Your task to perform on an android device: turn on translation in the chrome app Image 0: 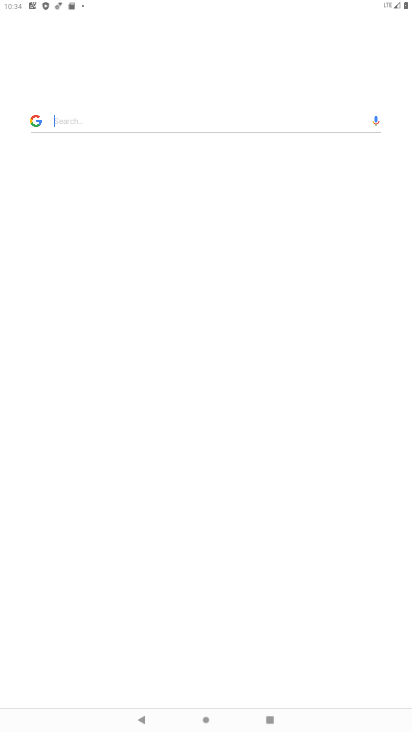
Step 0: drag from (163, 727) to (321, 1)
Your task to perform on an android device: turn on translation in the chrome app Image 1: 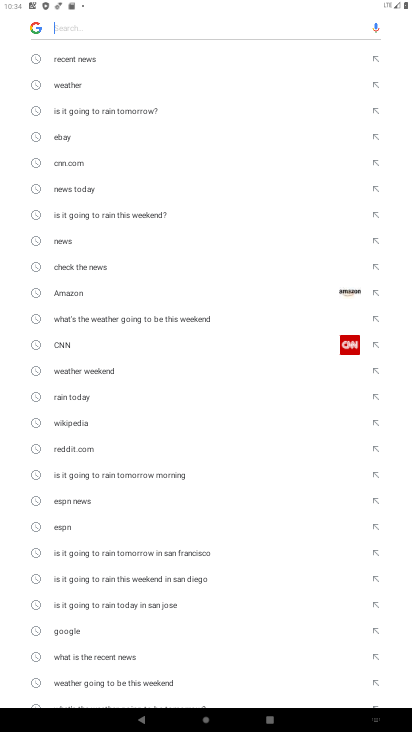
Step 1: press home button
Your task to perform on an android device: turn on translation in the chrome app Image 2: 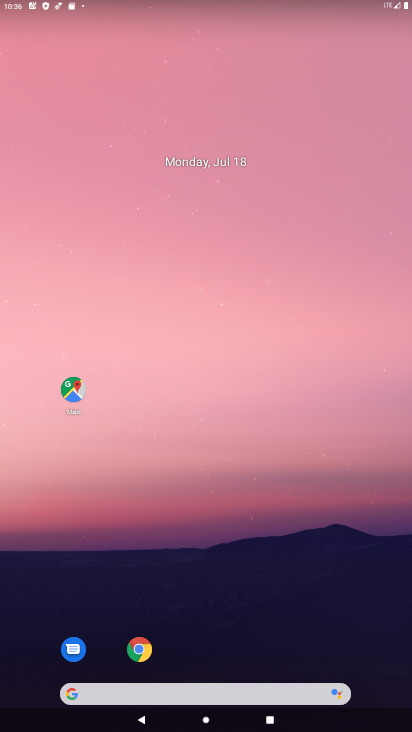
Step 2: drag from (179, 629) to (403, 16)
Your task to perform on an android device: turn on translation in the chrome app Image 3: 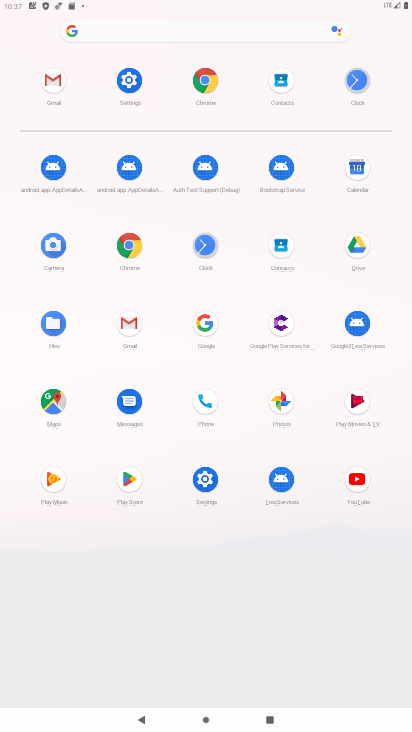
Step 3: click (207, 82)
Your task to perform on an android device: turn on translation in the chrome app Image 4: 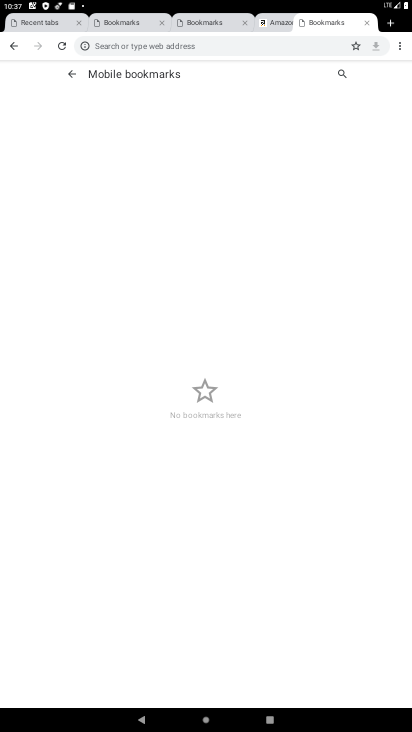
Step 4: click (398, 47)
Your task to perform on an android device: turn on translation in the chrome app Image 5: 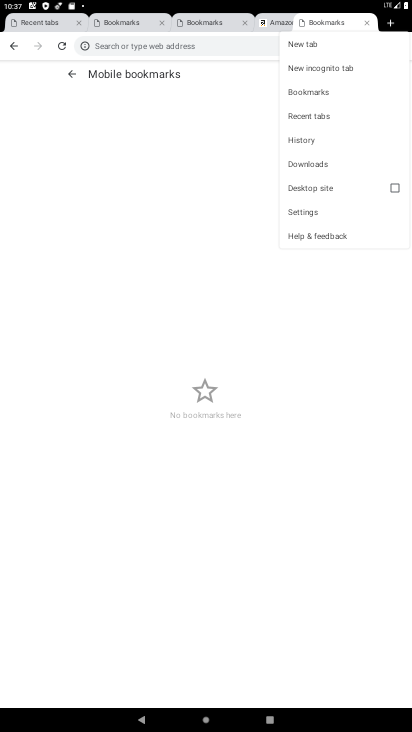
Step 5: click (312, 212)
Your task to perform on an android device: turn on translation in the chrome app Image 6: 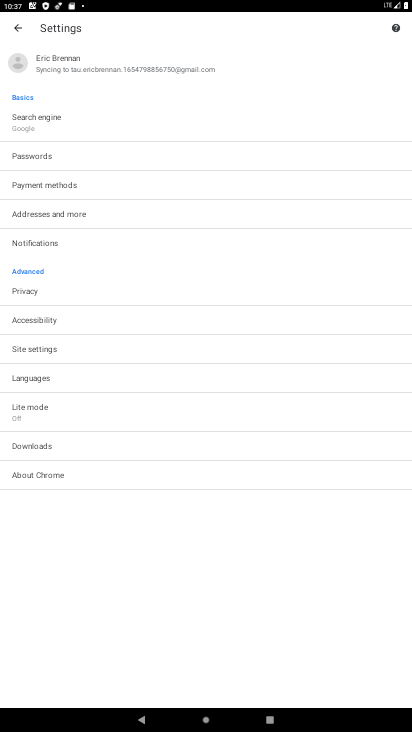
Step 6: click (39, 387)
Your task to perform on an android device: turn on translation in the chrome app Image 7: 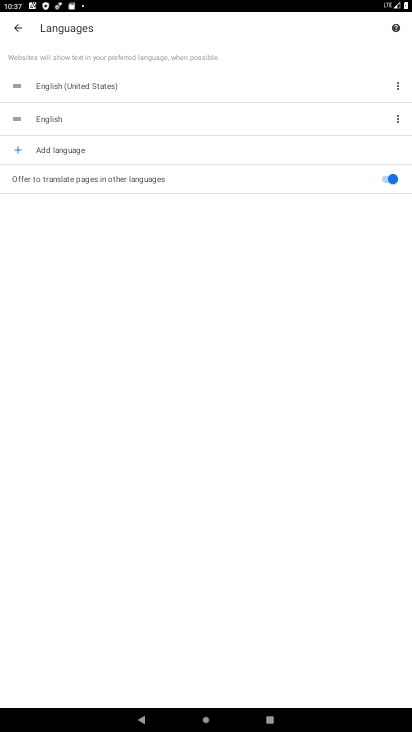
Step 7: task complete